Your task to perform on an android device: turn on javascript in the chrome app Image 0: 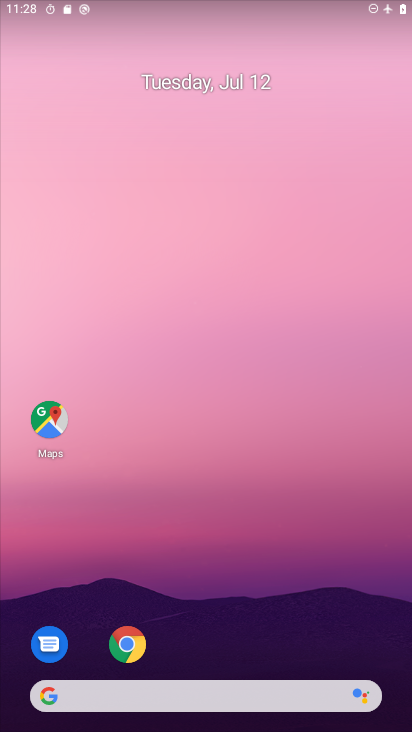
Step 0: click (135, 648)
Your task to perform on an android device: turn on javascript in the chrome app Image 1: 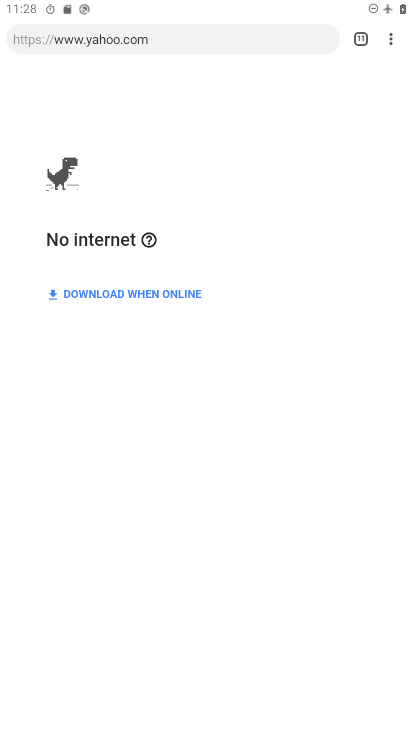
Step 1: click (383, 37)
Your task to perform on an android device: turn on javascript in the chrome app Image 2: 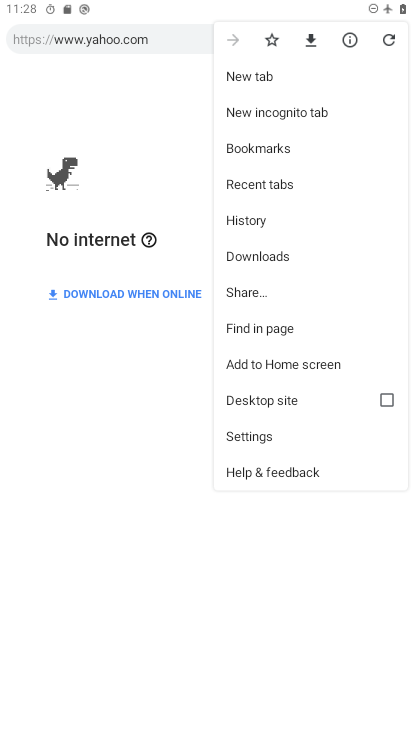
Step 2: click (263, 432)
Your task to perform on an android device: turn on javascript in the chrome app Image 3: 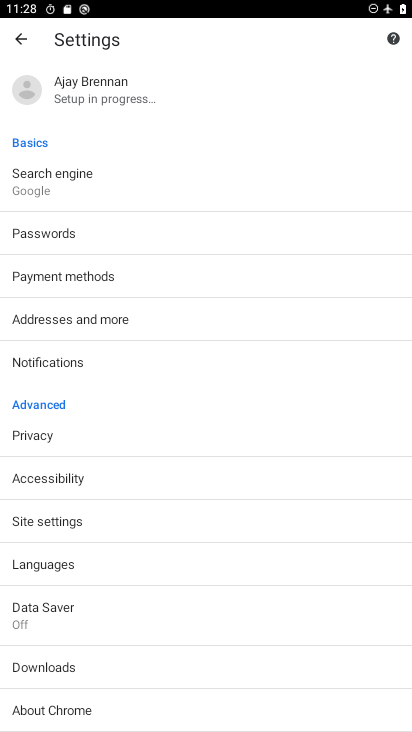
Step 3: click (61, 523)
Your task to perform on an android device: turn on javascript in the chrome app Image 4: 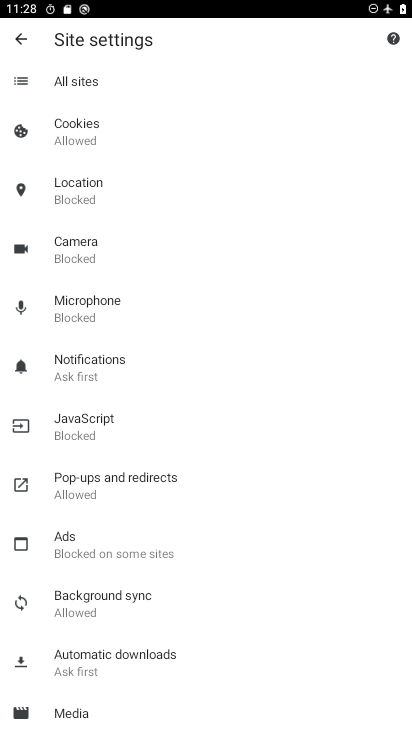
Step 4: click (124, 434)
Your task to perform on an android device: turn on javascript in the chrome app Image 5: 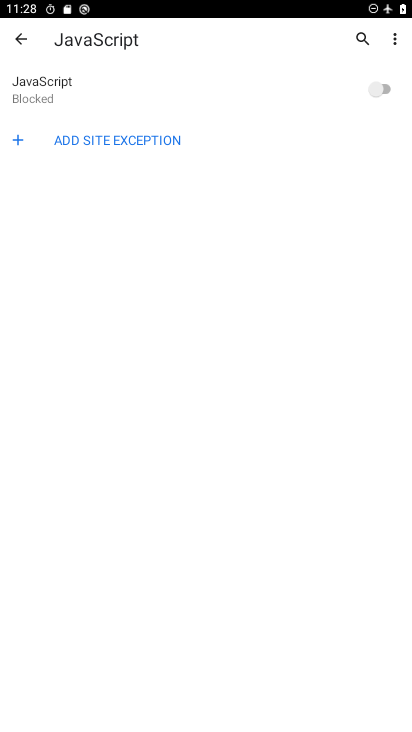
Step 5: click (388, 84)
Your task to perform on an android device: turn on javascript in the chrome app Image 6: 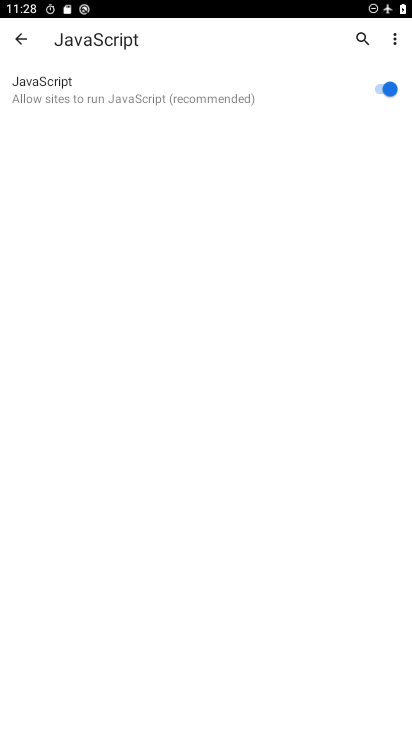
Step 6: task complete